Your task to perform on an android device: uninstall "Facebook Messenger" Image 0: 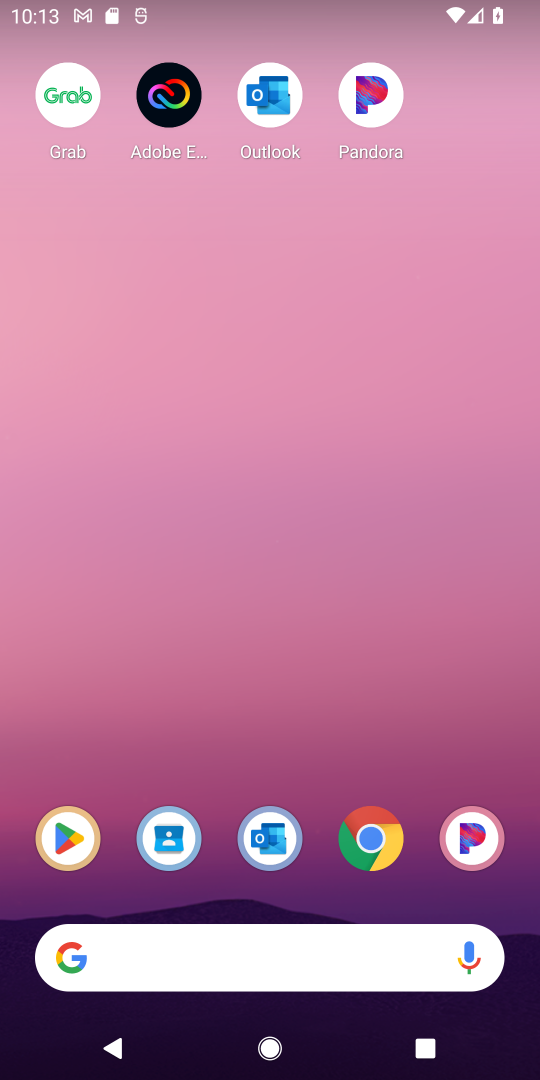
Step 0: click (58, 835)
Your task to perform on an android device: uninstall "Facebook Messenger" Image 1: 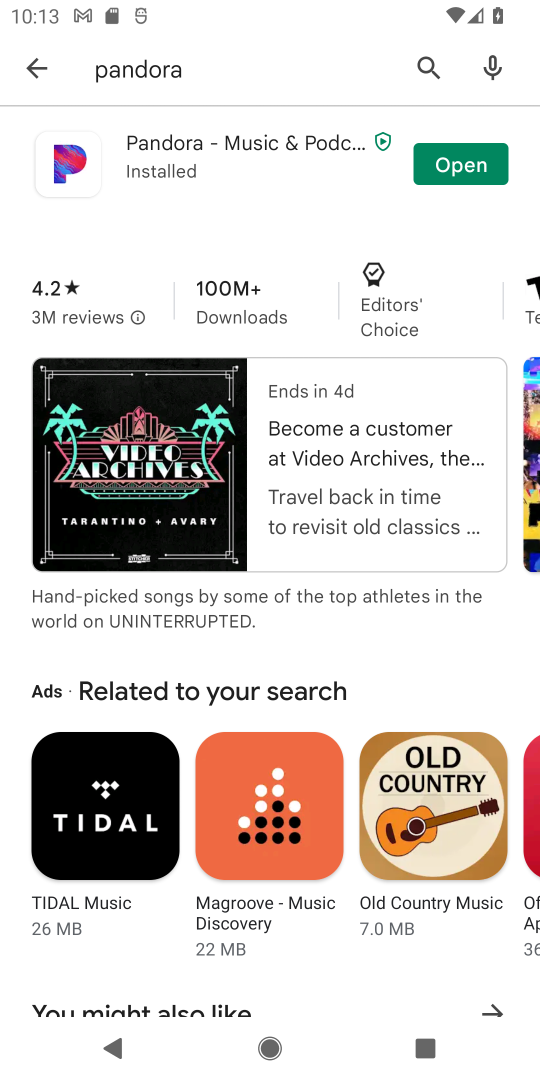
Step 1: click (209, 57)
Your task to perform on an android device: uninstall "Facebook Messenger" Image 2: 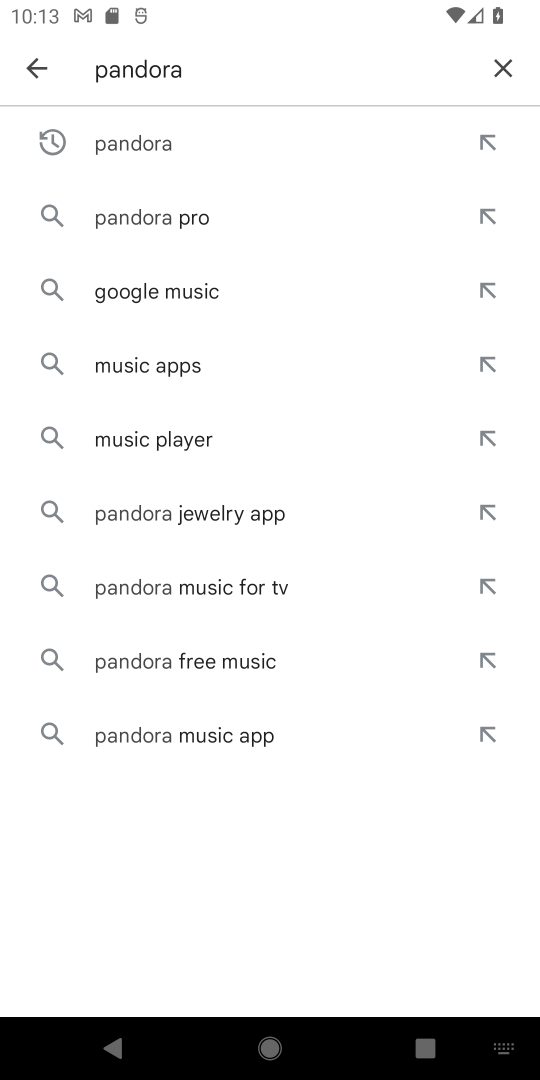
Step 2: click (495, 64)
Your task to perform on an android device: uninstall "Facebook Messenger" Image 3: 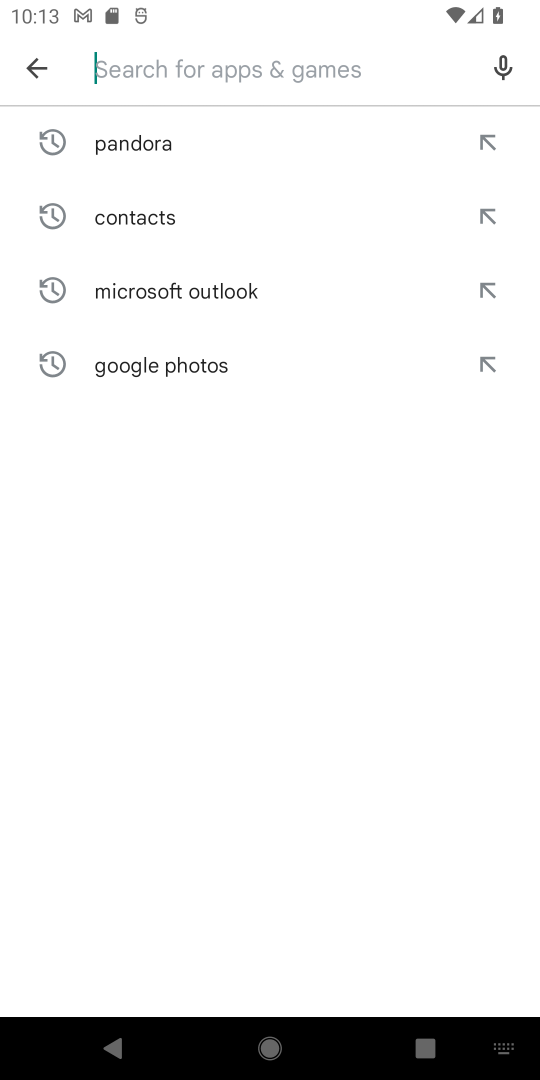
Step 3: type "facebook messenger"
Your task to perform on an android device: uninstall "Facebook Messenger" Image 4: 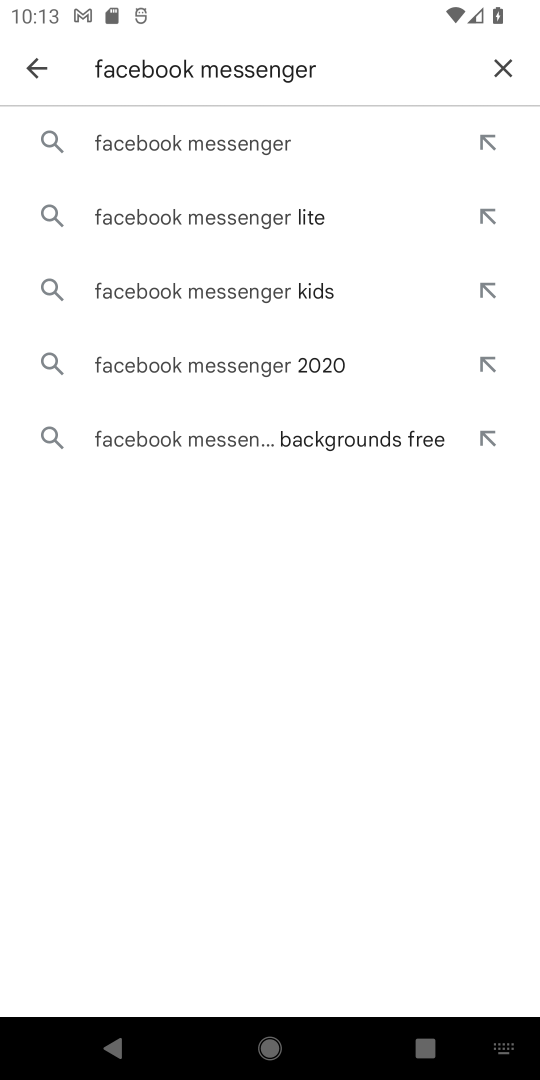
Step 4: click (222, 155)
Your task to perform on an android device: uninstall "Facebook Messenger" Image 5: 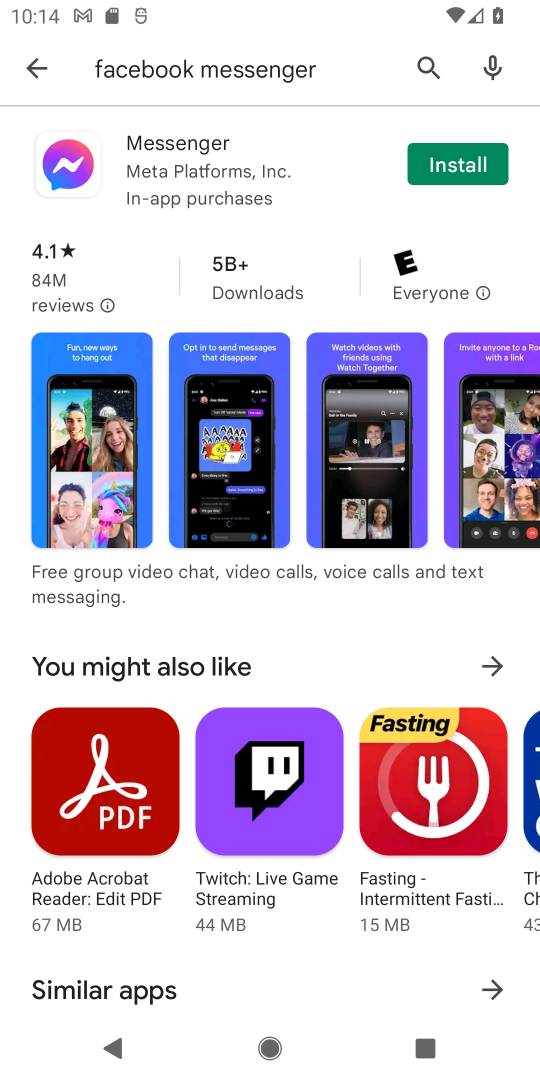
Step 5: task complete